Your task to perform on an android device: Open Google Chrome and click the shortcut for Amazon.com Image 0: 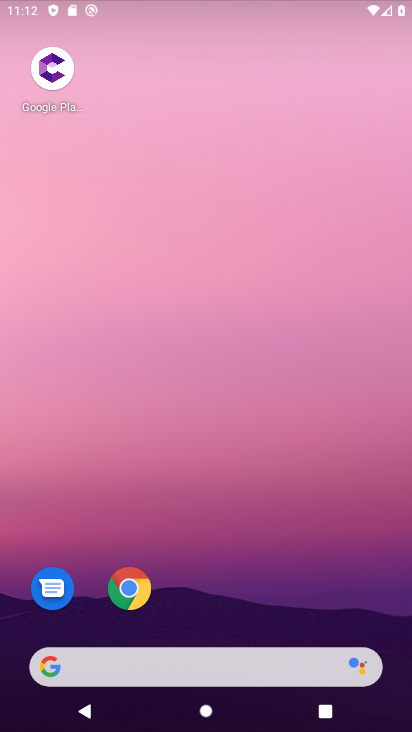
Step 0: drag from (231, 653) to (179, 69)
Your task to perform on an android device: Open Google Chrome and click the shortcut for Amazon.com Image 1: 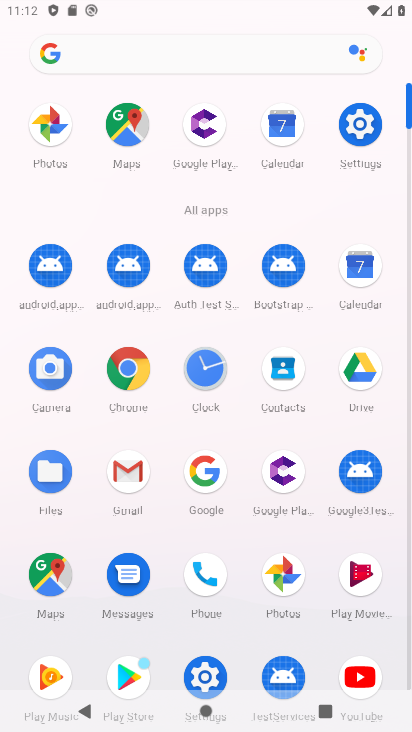
Step 1: click (130, 386)
Your task to perform on an android device: Open Google Chrome and click the shortcut for Amazon.com Image 2: 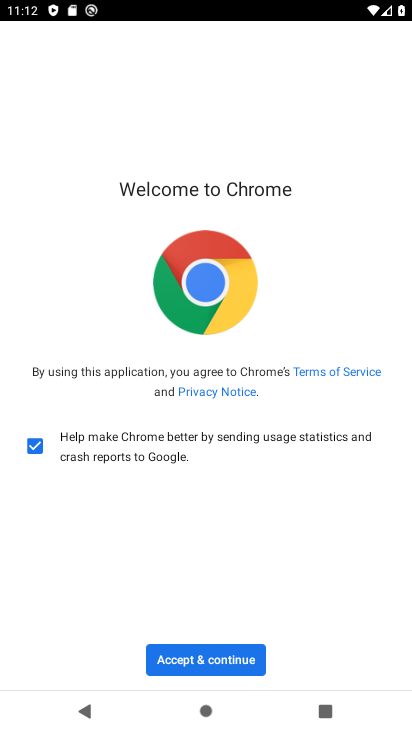
Step 2: click (231, 653)
Your task to perform on an android device: Open Google Chrome and click the shortcut for Amazon.com Image 3: 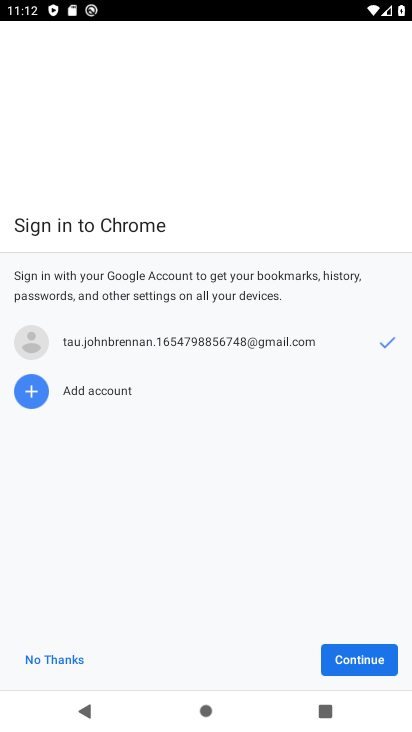
Step 3: click (340, 655)
Your task to perform on an android device: Open Google Chrome and click the shortcut for Amazon.com Image 4: 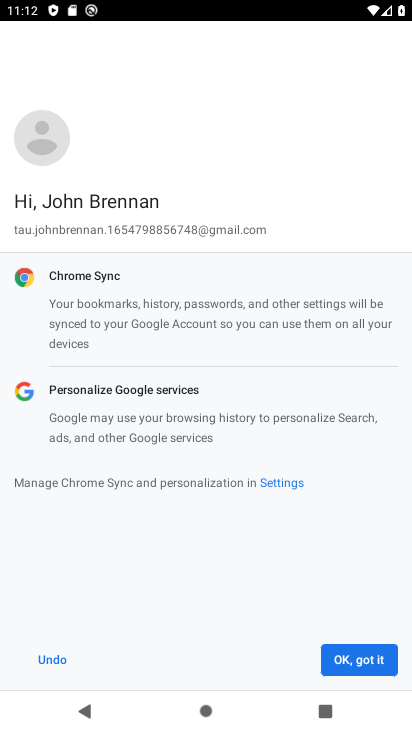
Step 4: click (373, 658)
Your task to perform on an android device: Open Google Chrome and click the shortcut for Amazon.com Image 5: 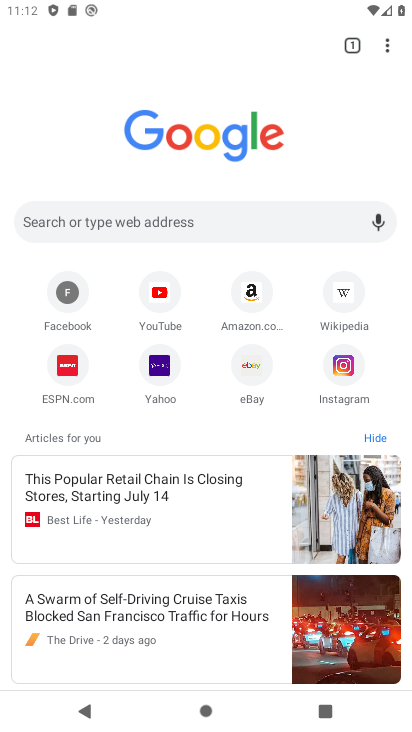
Step 5: click (244, 293)
Your task to perform on an android device: Open Google Chrome and click the shortcut for Amazon.com Image 6: 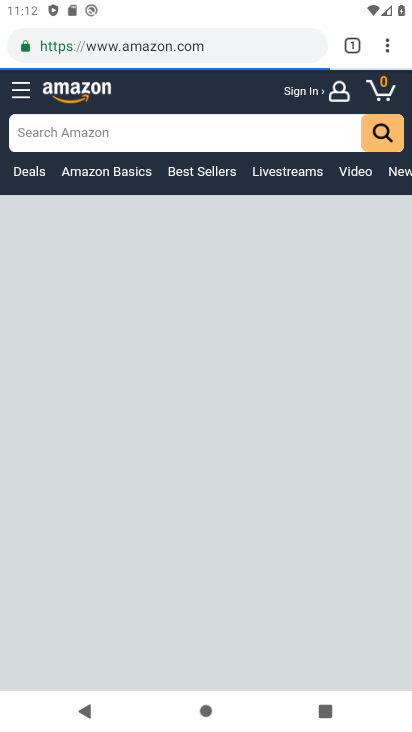
Step 6: task complete